Your task to perform on an android device: Open internet settings Image 0: 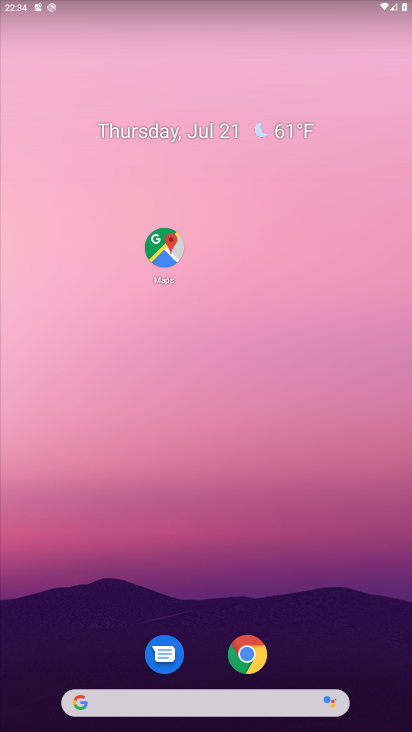
Step 0: drag from (15, 689) to (167, 119)
Your task to perform on an android device: Open internet settings Image 1: 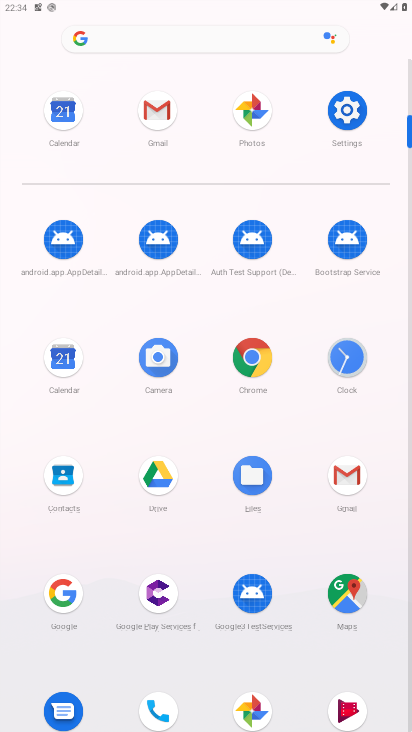
Step 1: click (351, 110)
Your task to perform on an android device: Open internet settings Image 2: 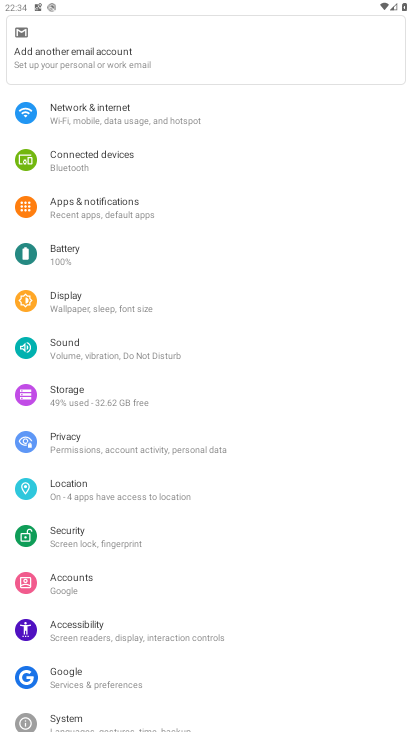
Step 2: click (126, 113)
Your task to perform on an android device: Open internet settings Image 3: 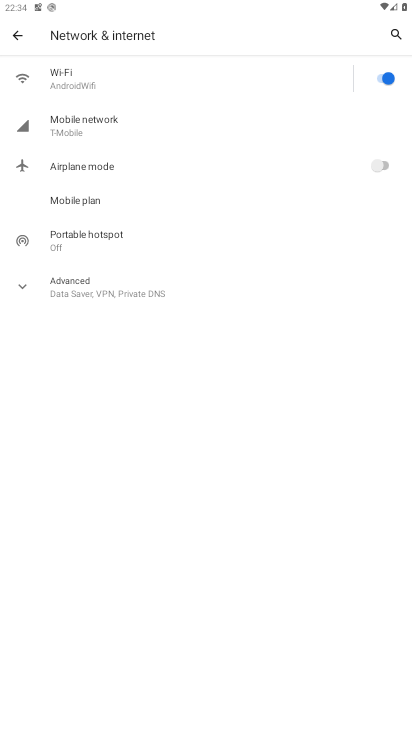
Step 3: task complete